Your task to perform on an android device: stop showing notifications on the lock screen Image 0: 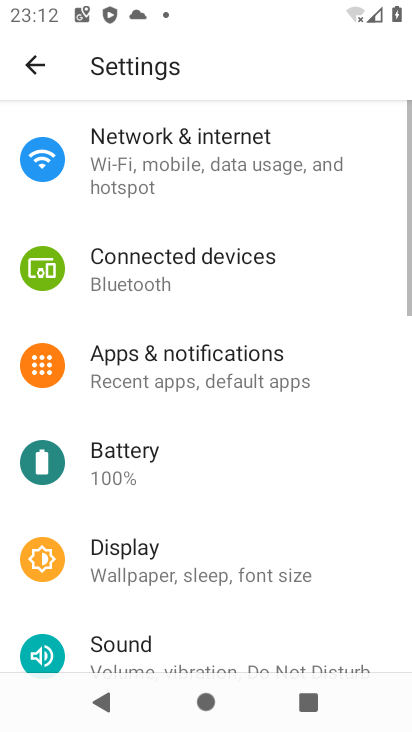
Step 0: press home button
Your task to perform on an android device: stop showing notifications on the lock screen Image 1: 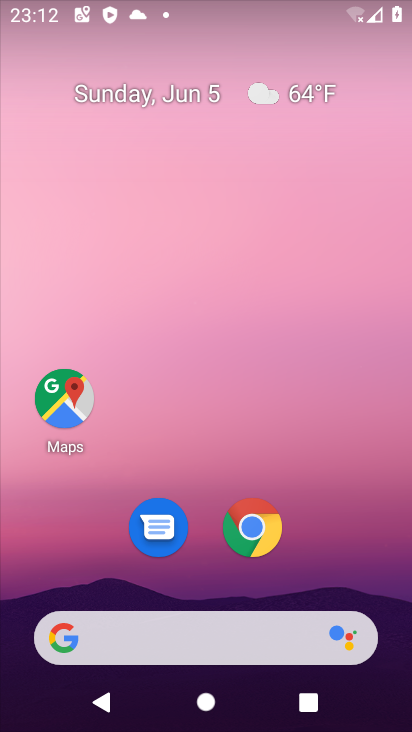
Step 1: drag from (338, 513) to (314, 394)
Your task to perform on an android device: stop showing notifications on the lock screen Image 2: 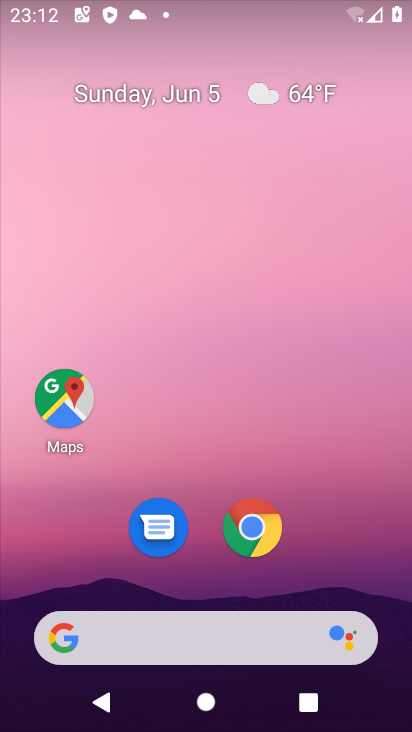
Step 2: drag from (357, 532) to (397, 195)
Your task to perform on an android device: stop showing notifications on the lock screen Image 3: 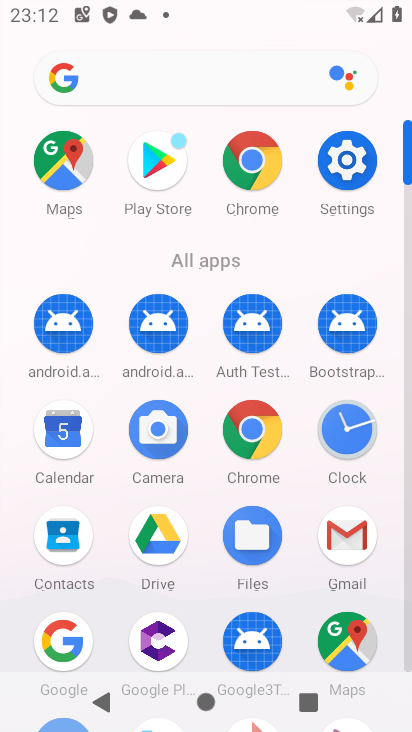
Step 3: click (339, 154)
Your task to perform on an android device: stop showing notifications on the lock screen Image 4: 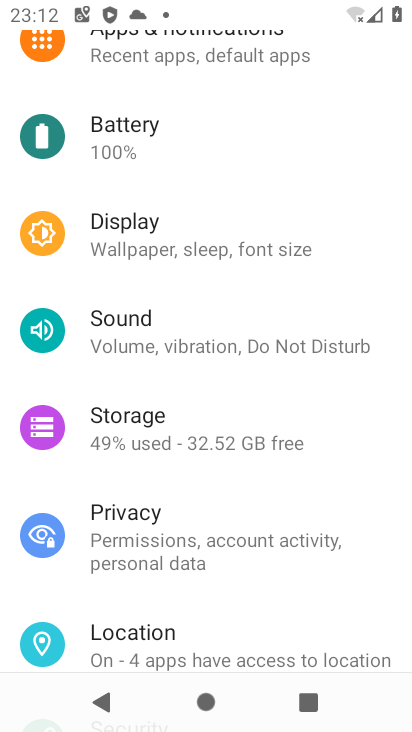
Step 4: click (234, 42)
Your task to perform on an android device: stop showing notifications on the lock screen Image 5: 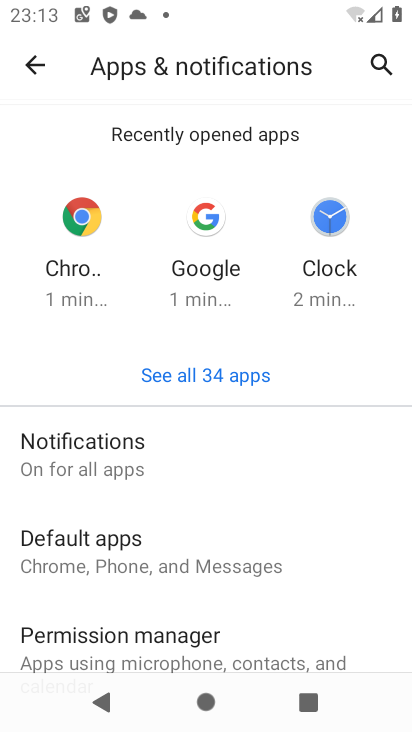
Step 5: click (143, 453)
Your task to perform on an android device: stop showing notifications on the lock screen Image 6: 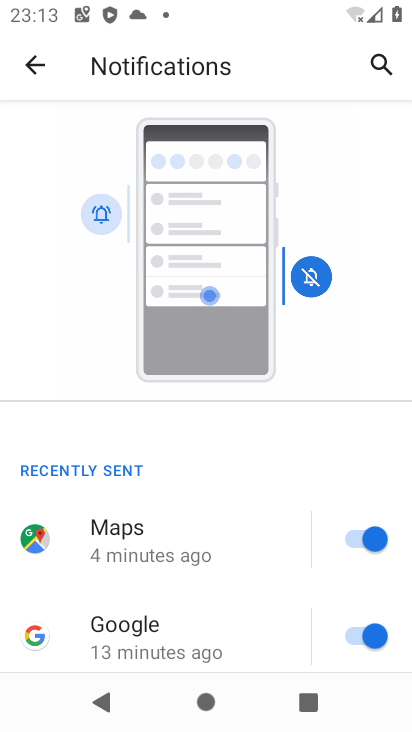
Step 6: drag from (238, 608) to (239, 487)
Your task to perform on an android device: stop showing notifications on the lock screen Image 7: 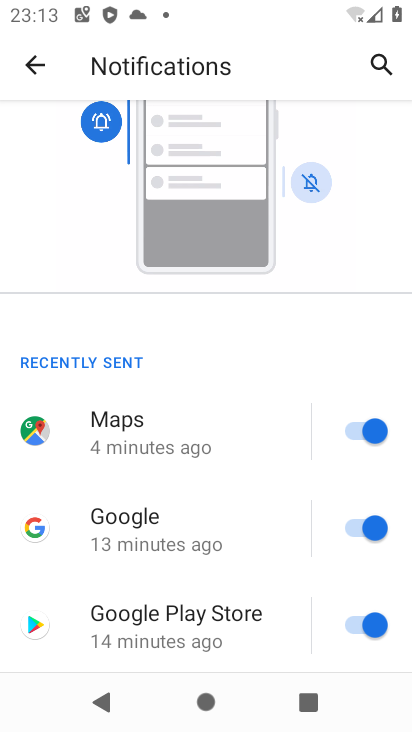
Step 7: drag from (218, 668) to (238, 421)
Your task to perform on an android device: stop showing notifications on the lock screen Image 8: 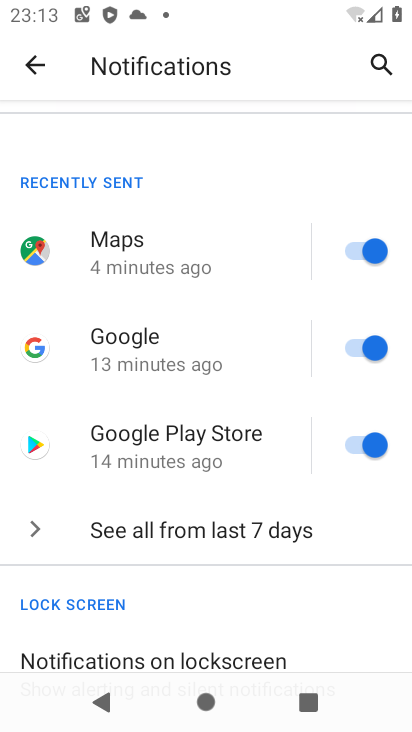
Step 8: click (165, 639)
Your task to perform on an android device: stop showing notifications on the lock screen Image 9: 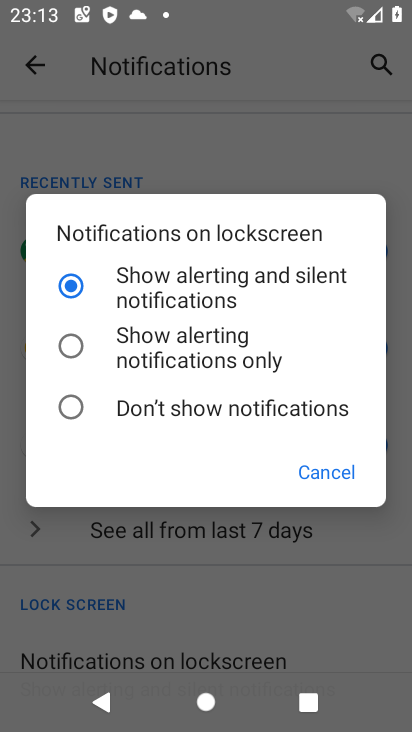
Step 9: click (194, 409)
Your task to perform on an android device: stop showing notifications on the lock screen Image 10: 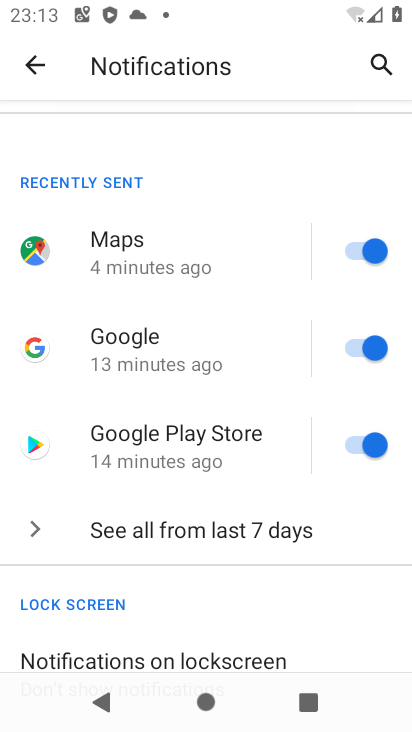
Step 10: task complete